Your task to perform on an android device: Go to Maps Image 0: 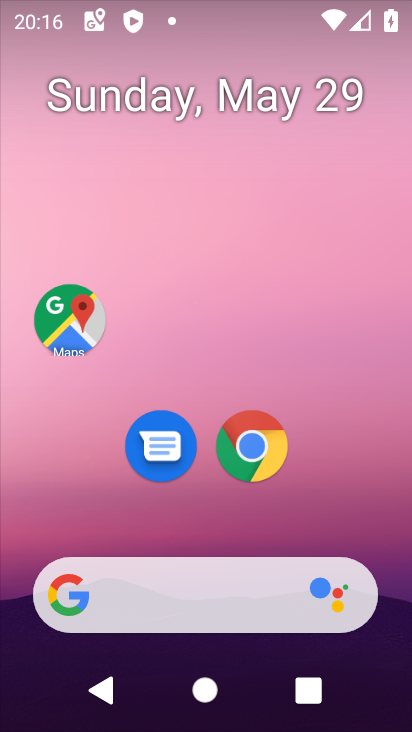
Step 0: drag from (182, 613) to (234, 262)
Your task to perform on an android device: Go to Maps Image 1: 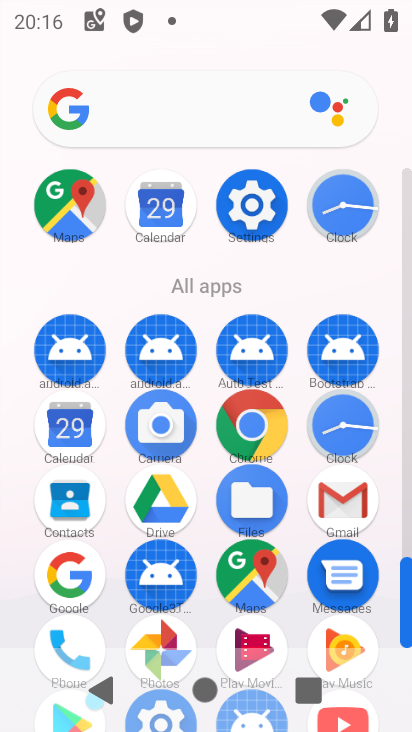
Step 1: click (57, 216)
Your task to perform on an android device: Go to Maps Image 2: 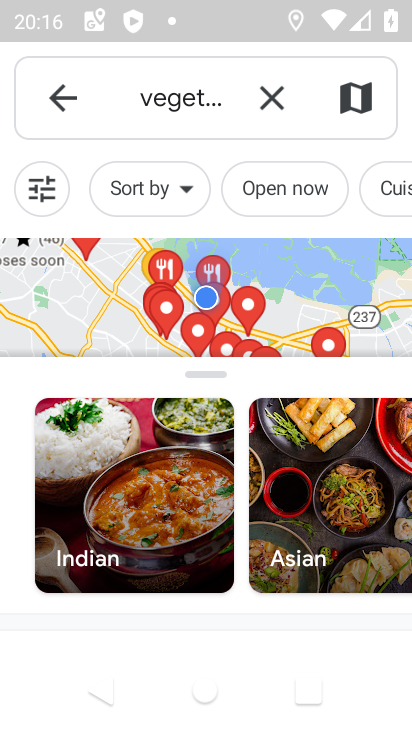
Step 2: task complete